Your task to perform on an android device: Open settings on Google Maps Image 0: 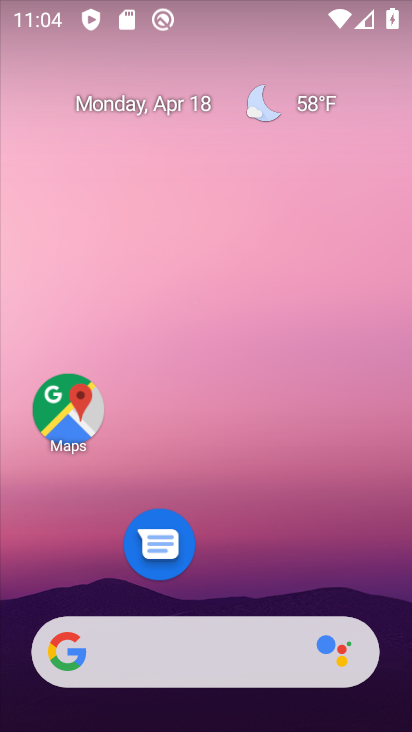
Step 0: click (65, 410)
Your task to perform on an android device: Open settings on Google Maps Image 1: 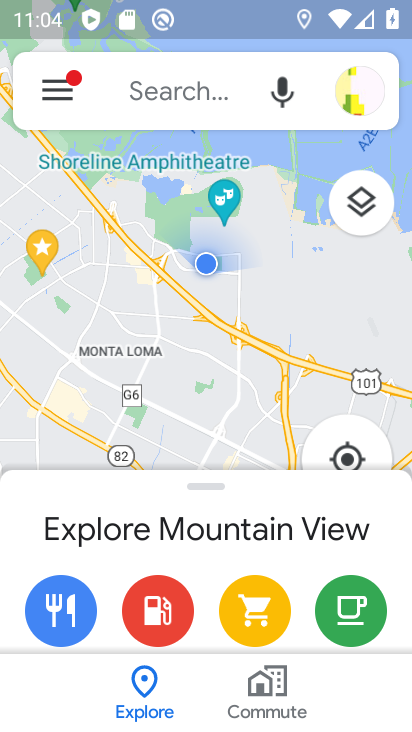
Step 1: task complete